Your task to perform on an android device: Is it going to rain this weekend? Image 0: 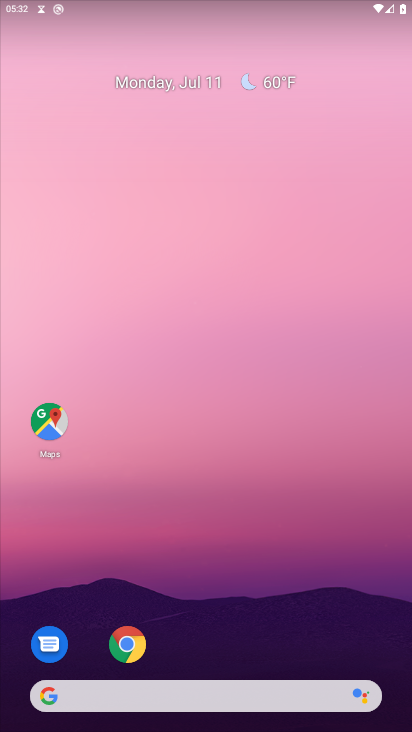
Step 0: drag from (206, 634) to (239, 334)
Your task to perform on an android device: Is it going to rain this weekend? Image 1: 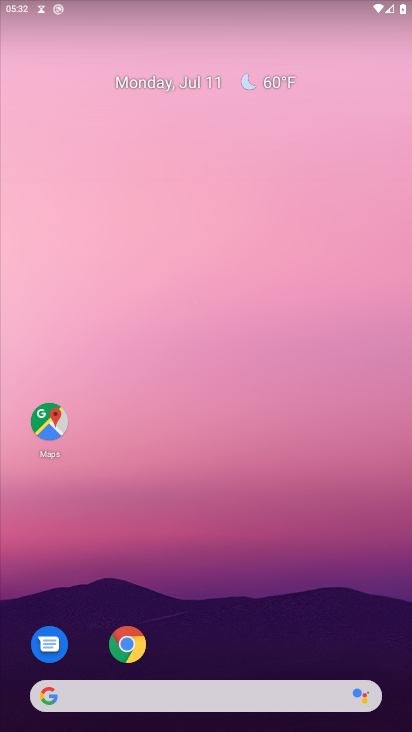
Step 1: drag from (257, 676) to (278, 327)
Your task to perform on an android device: Is it going to rain this weekend? Image 2: 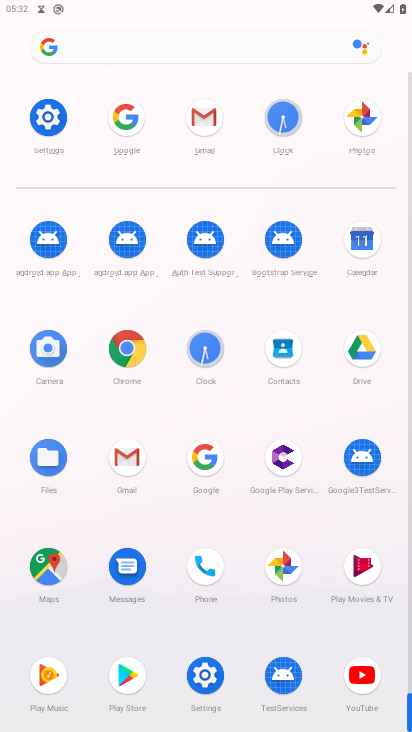
Step 2: click (204, 462)
Your task to perform on an android device: Is it going to rain this weekend? Image 3: 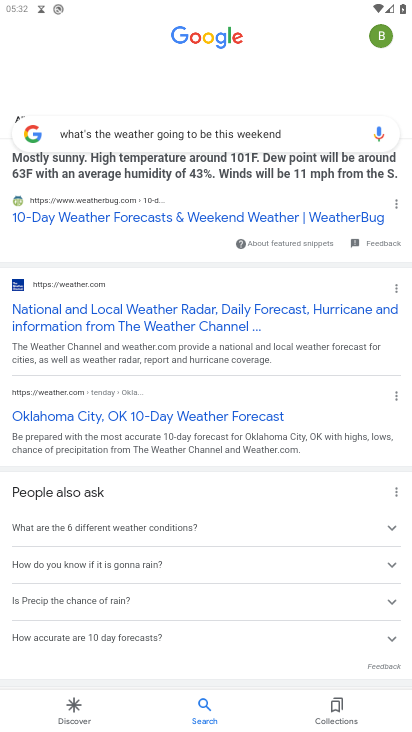
Step 3: click (299, 125)
Your task to perform on an android device: Is it going to rain this weekend? Image 4: 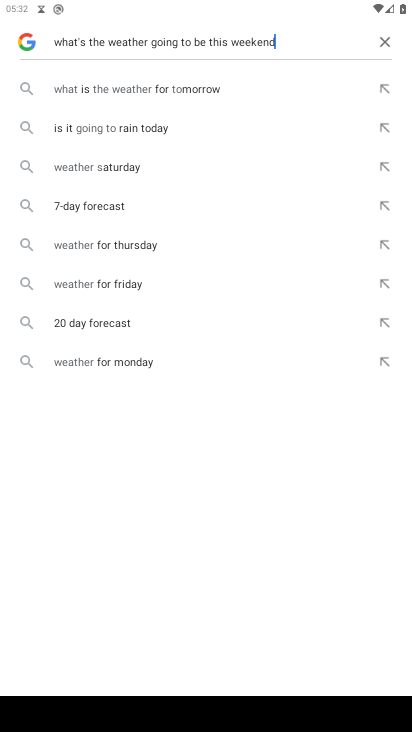
Step 4: click (385, 47)
Your task to perform on an android device: Is it going to rain this weekend? Image 5: 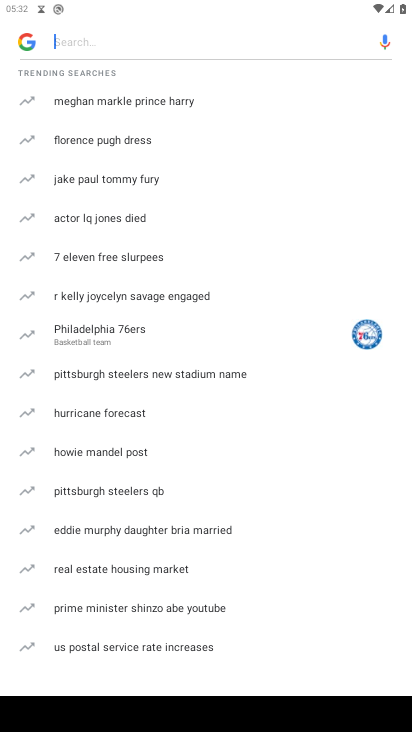
Step 5: type "Is it going to rain this weekend?"
Your task to perform on an android device: Is it going to rain this weekend? Image 6: 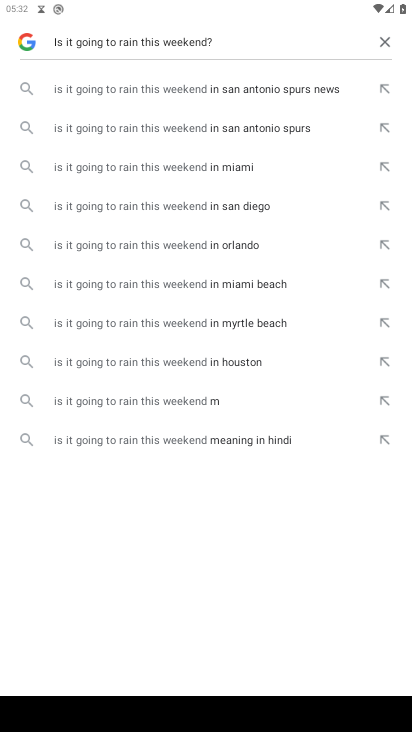
Step 6: click (179, 401)
Your task to perform on an android device: Is it going to rain this weekend? Image 7: 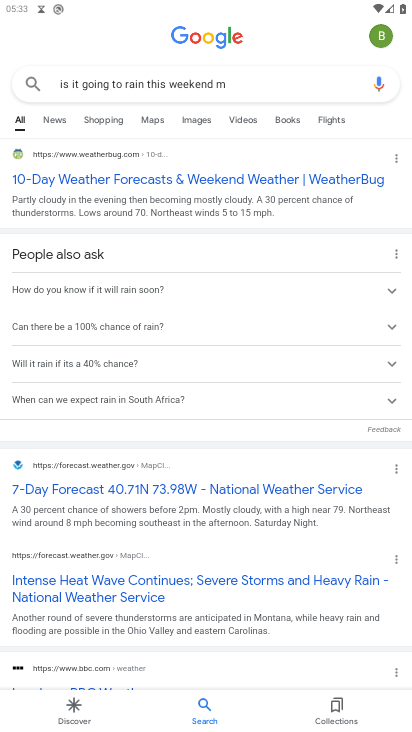
Step 7: click (154, 178)
Your task to perform on an android device: Is it going to rain this weekend? Image 8: 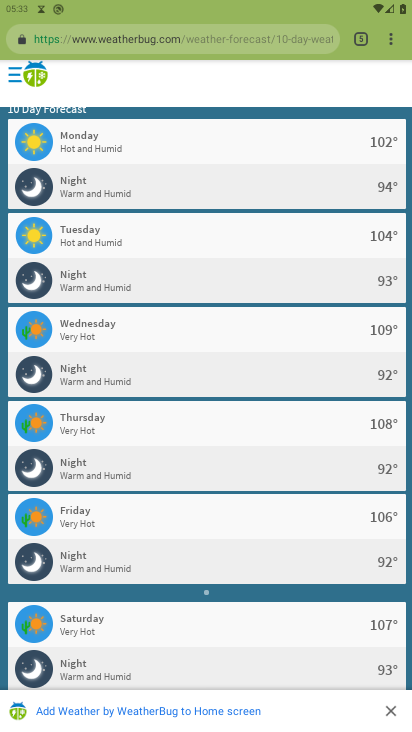
Step 8: task complete